Your task to perform on an android device: see tabs open on other devices in the chrome app Image 0: 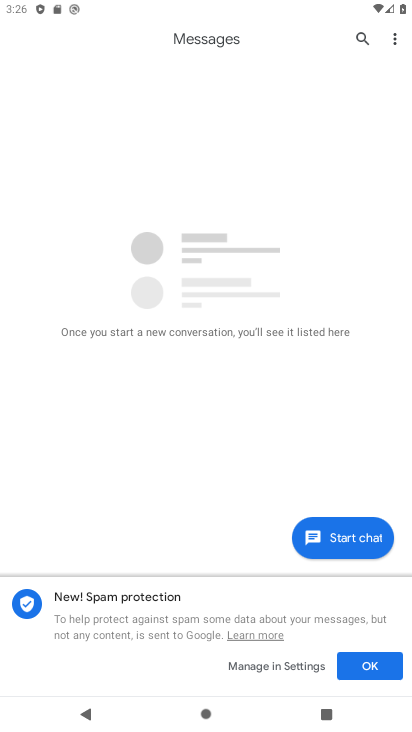
Step 0: press home button
Your task to perform on an android device: see tabs open on other devices in the chrome app Image 1: 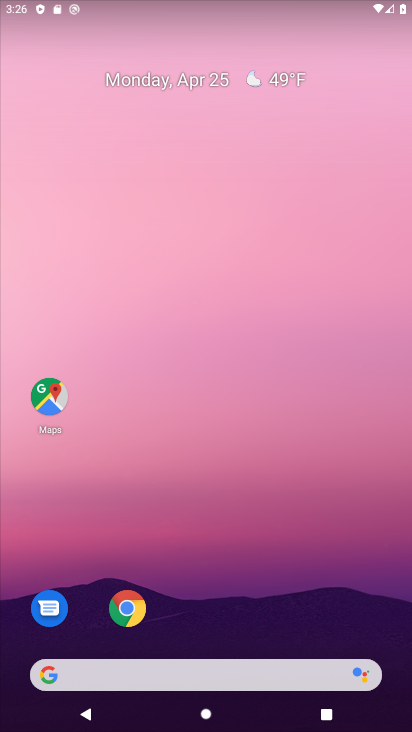
Step 1: click (124, 596)
Your task to perform on an android device: see tabs open on other devices in the chrome app Image 2: 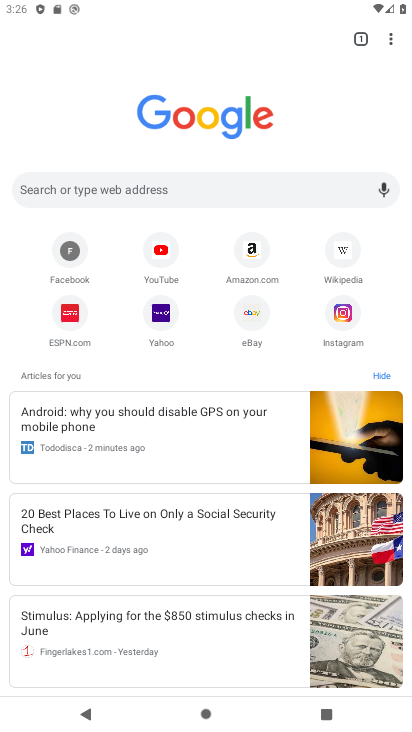
Step 2: task complete